Your task to perform on an android device: turn vacation reply on in the gmail app Image 0: 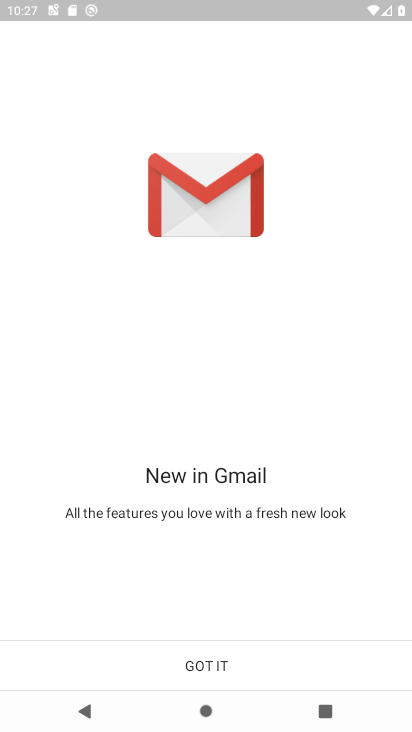
Step 0: click (187, 658)
Your task to perform on an android device: turn vacation reply on in the gmail app Image 1: 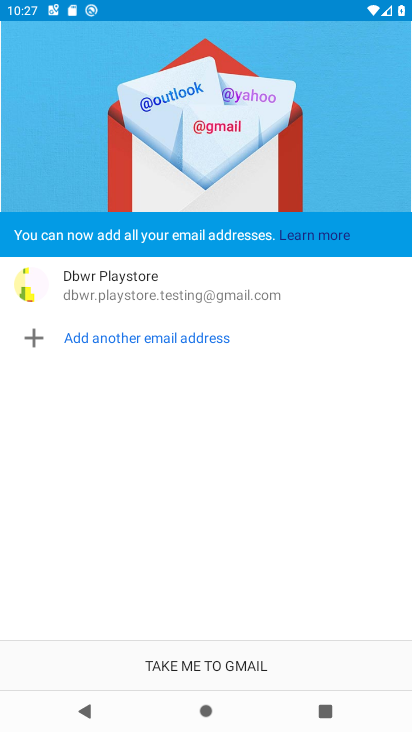
Step 1: click (194, 666)
Your task to perform on an android device: turn vacation reply on in the gmail app Image 2: 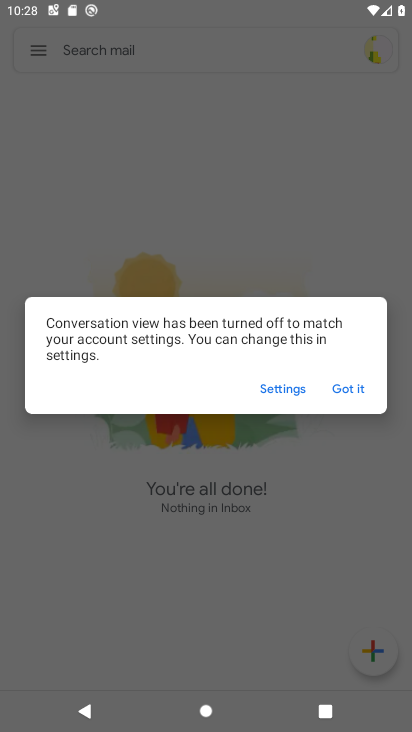
Step 2: click (343, 387)
Your task to perform on an android device: turn vacation reply on in the gmail app Image 3: 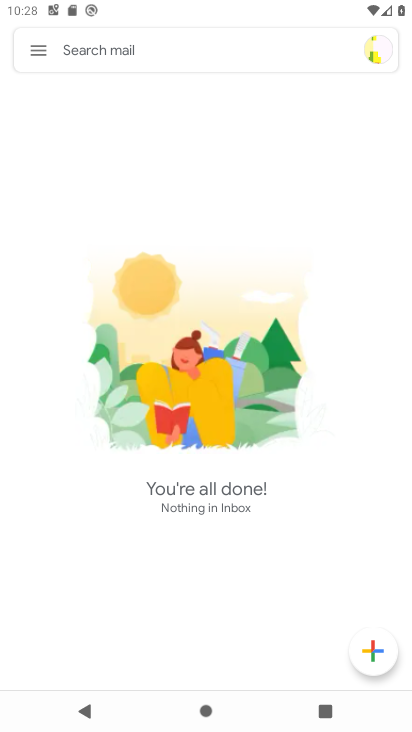
Step 3: click (40, 54)
Your task to perform on an android device: turn vacation reply on in the gmail app Image 4: 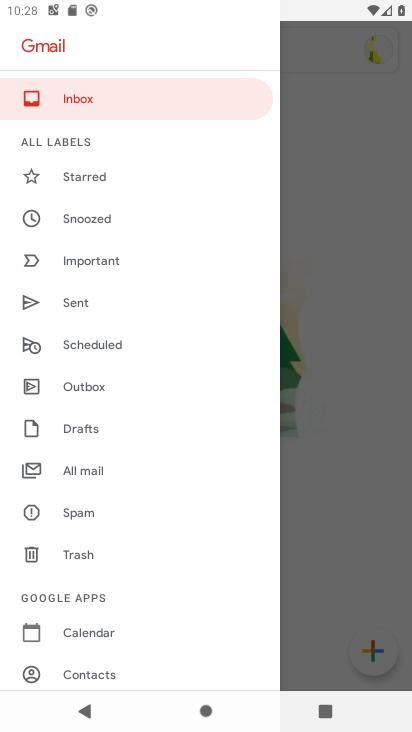
Step 4: drag from (200, 633) to (197, 413)
Your task to perform on an android device: turn vacation reply on in the gmail app Image 5: 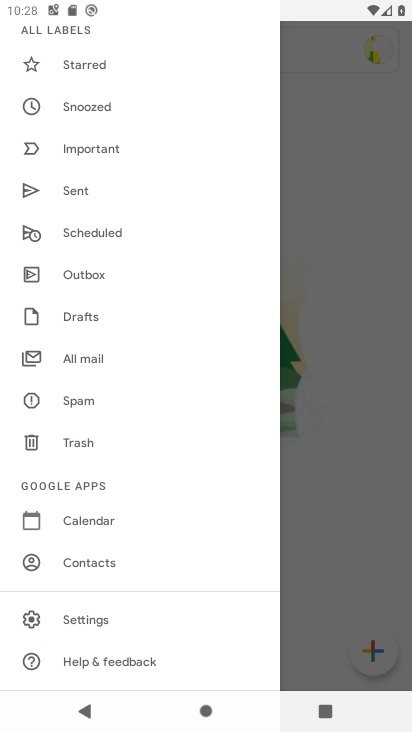
Step 5: click (93, 622)
Your task to perform on an android device: turn vacation reply on in the gmail app Image 6: 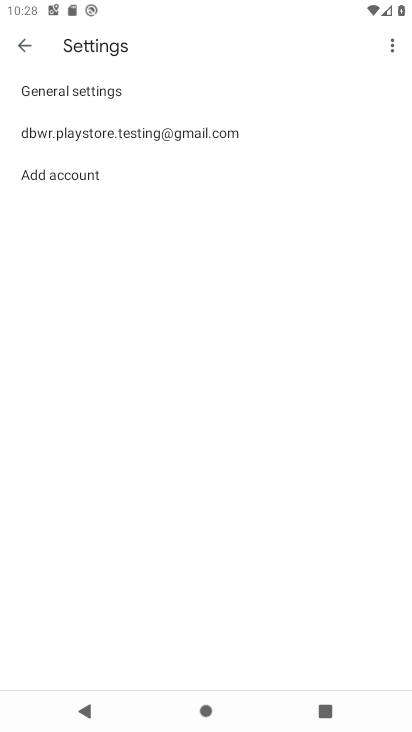
Step 6: click (89, 123)
Your task to perform on an android device: turn vacation reply on in the gmail app Image 7: 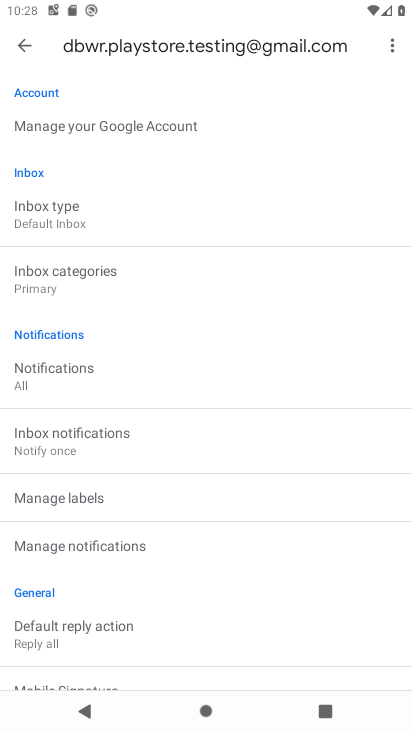
Step 7: drag from (197, 537) to (215, 238)
Your task to perform on an android device: turn vacation reply on in the gmail app Image 8: 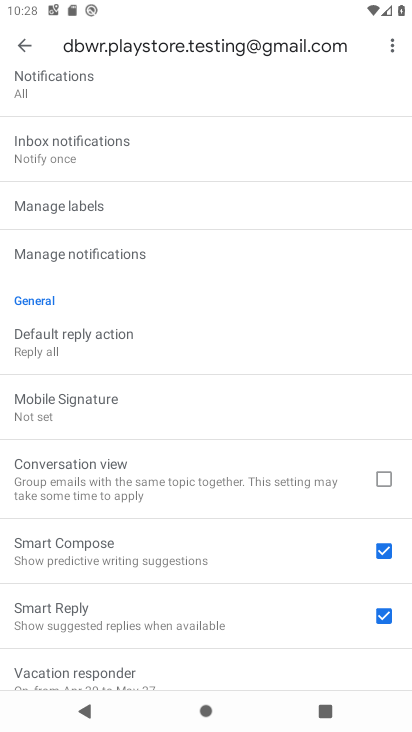
Step 8: drag from (155, 614) to (177, 362)
Your task to perform on an android device: turn vacation reply on in the gmail app Image 9: 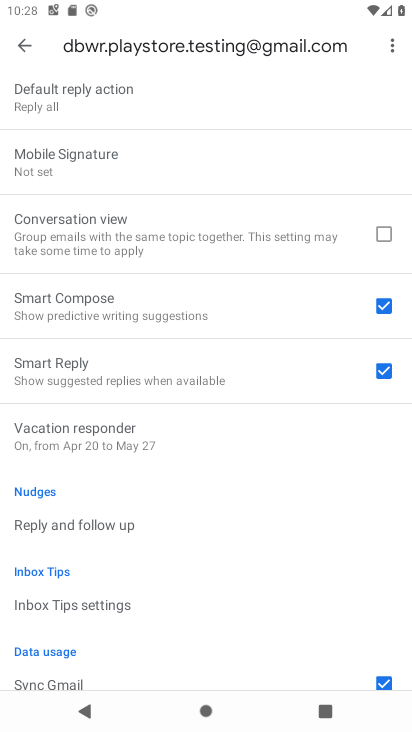
Step 9: click (67, 428)
Your task to perform on an android device: turn vacation reply on in the gmail app Image 10: 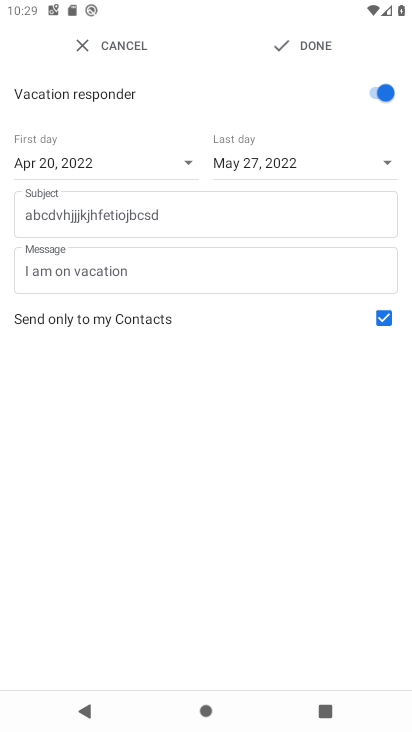
Step 10: task complete